Your task to perform on an android device: Clear the cart on target. Search for usb-b on target, select the first entry, add it to the cart, then select checkout. Image 0: 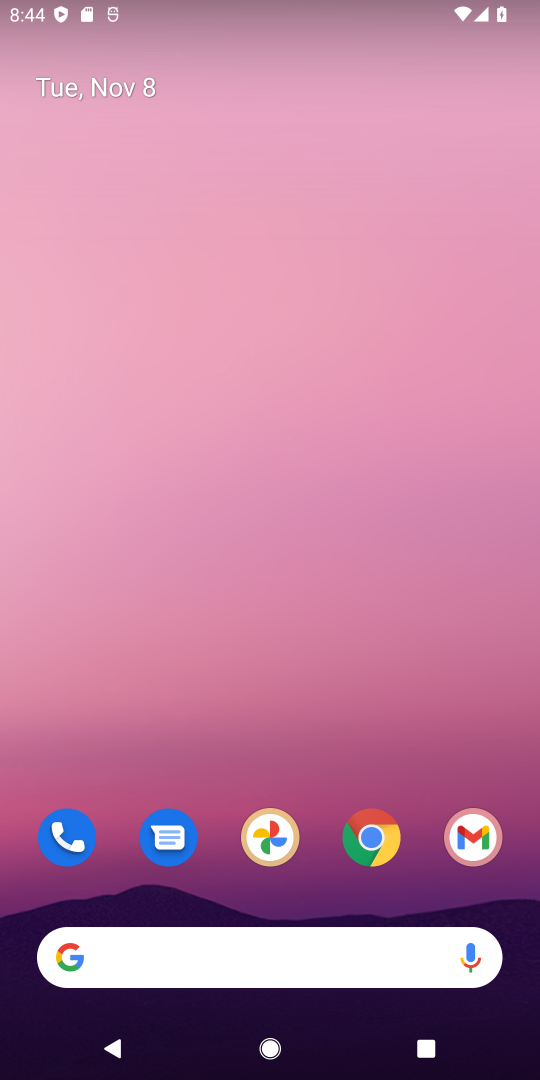
Step 0: click (366, 852)
Your task to perform on an android device: Clear the cart on target. Search for usb-b on target, select the first entry, add it to the cart, then select checkout. Image 1: 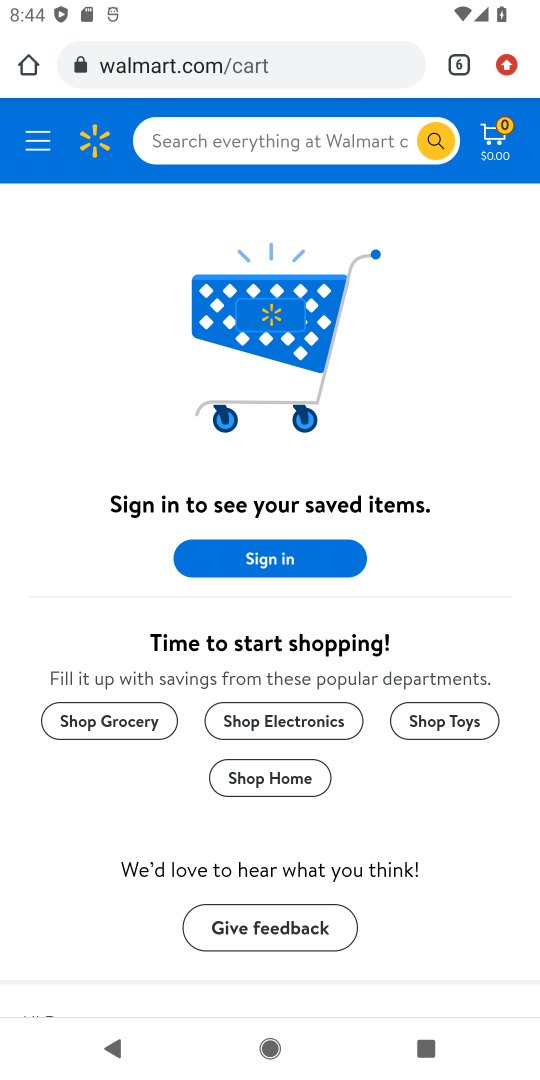
Step 1: click (459, 57)
Your task to perform on an android device: Clear the cart on target. Search for usb-b on target, select the first entry, add it to the cart, then select checkout. Image 2: 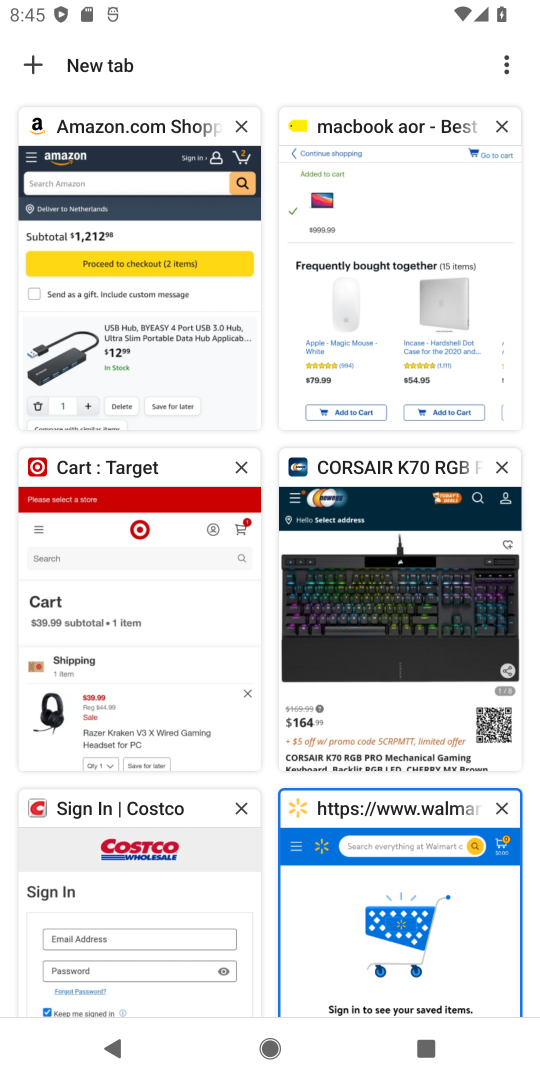
Step 2: click (157, 571)
Your task to perform on an android device: Clear the cart on target. Search for usb-b on target, select the first entry, add it to the cart, then select checkout. Image 3: 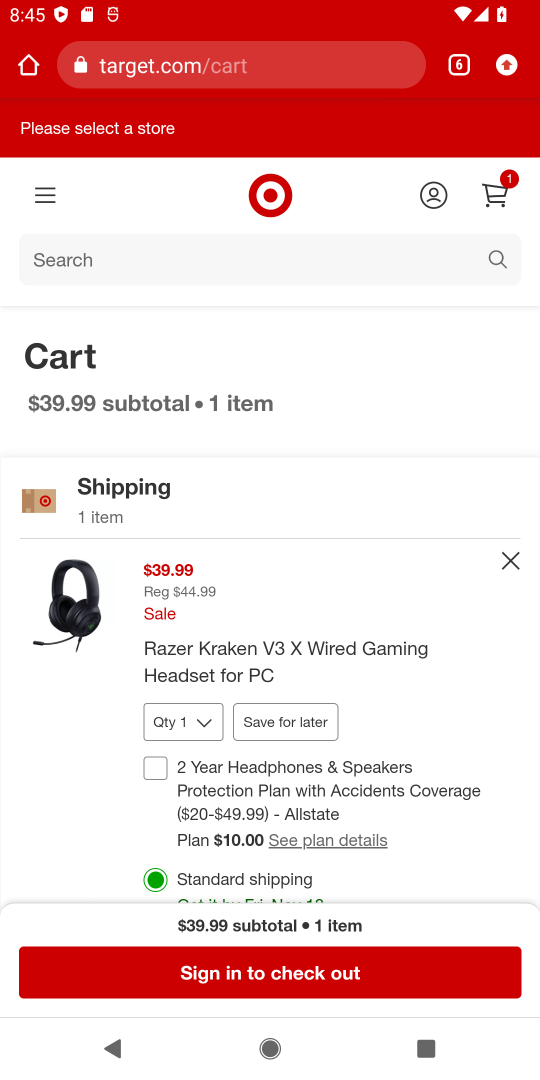
Step 3: click (511, 558)
Your task to perform on an android device: Clear the cart on target. Search for usb-b on target, select the first entry, add it to the cart, then select checkout. Image 4: 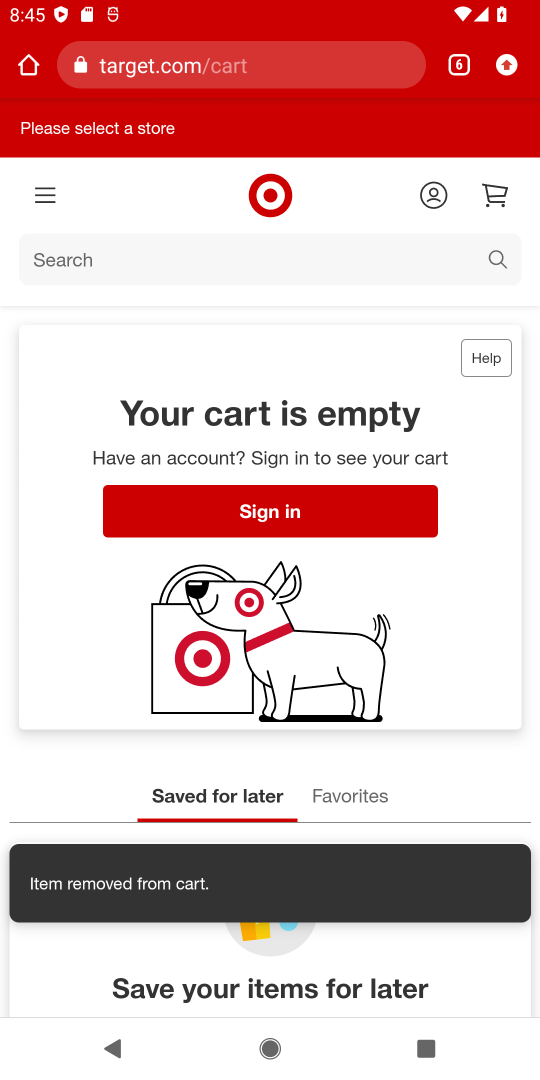
Step 4: click (126, 256)
Your task to perform on an android device: Clear the cart on target. Search for usb-b on target, select the first entry, add it to the cart, then select checkout. Image 5: 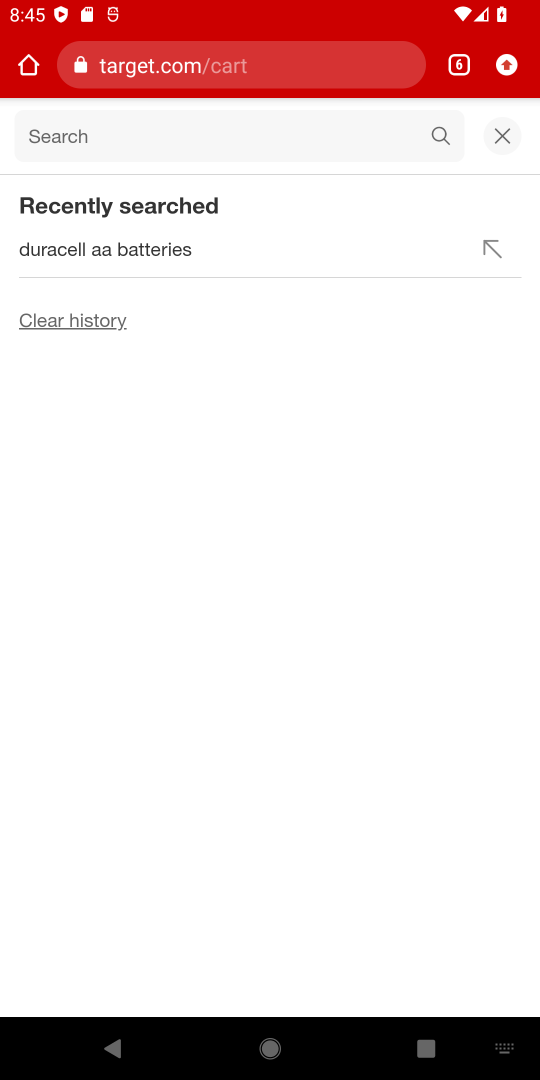
Step 5: type "usb-b"
Your task to perform on an android device: Clear the cart on target. Search for usb-b on target, select the first entry, add it to the cart, then select checkout. Image 6: 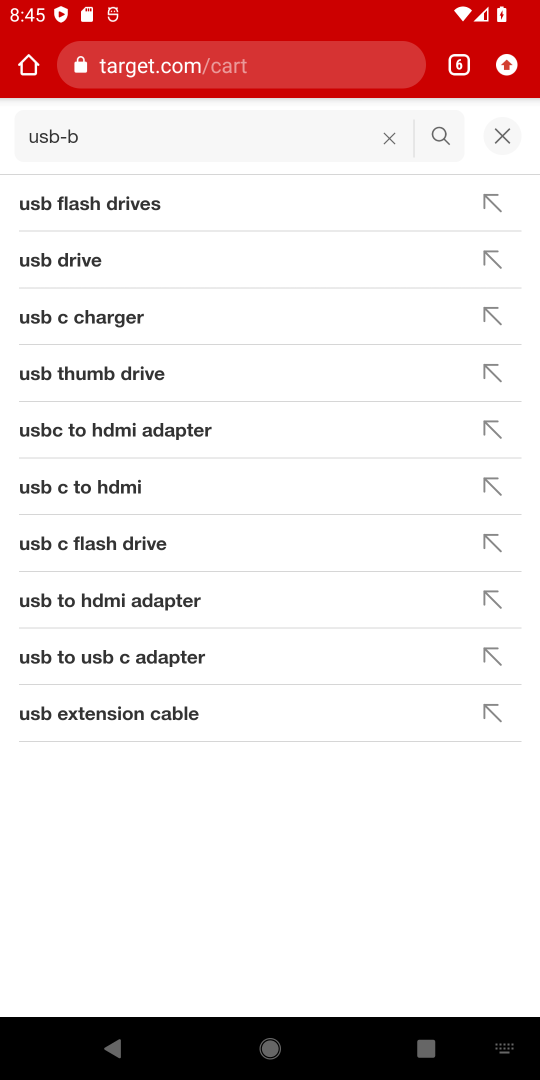
Step 6: click (436, 134)
Your task to perform on an android device: Clear the cart on target. Search for usb-b on target, select the first entry, add it to the cart, then select checkout. Image 7: 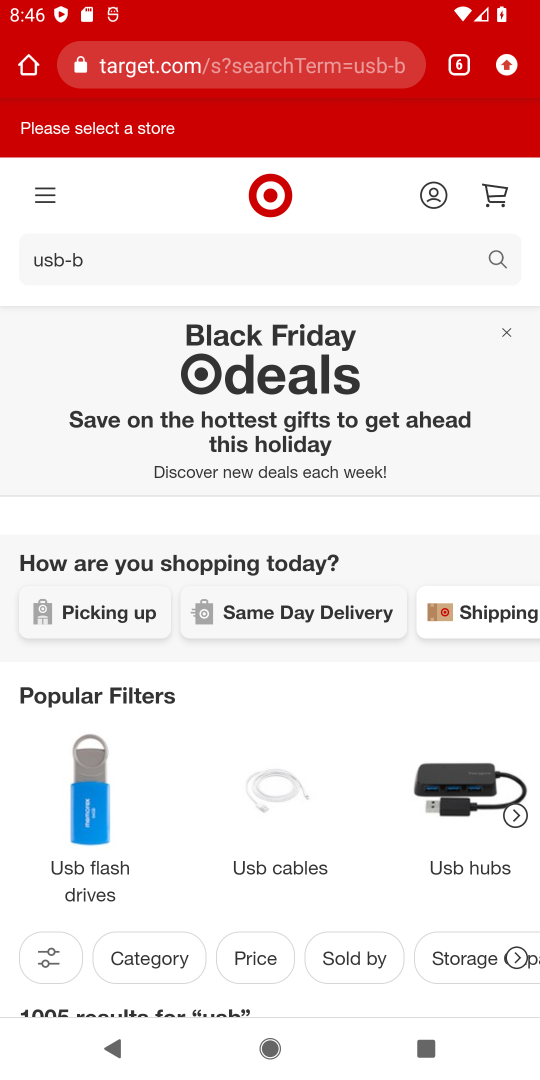
Step 7: drag from (223, 919) to (236, 531)
Your task to perform on an android device: Clear the cart on target. Search for usb-b on target, select the first entry, add it to the cart, then select checkout. Image 8: 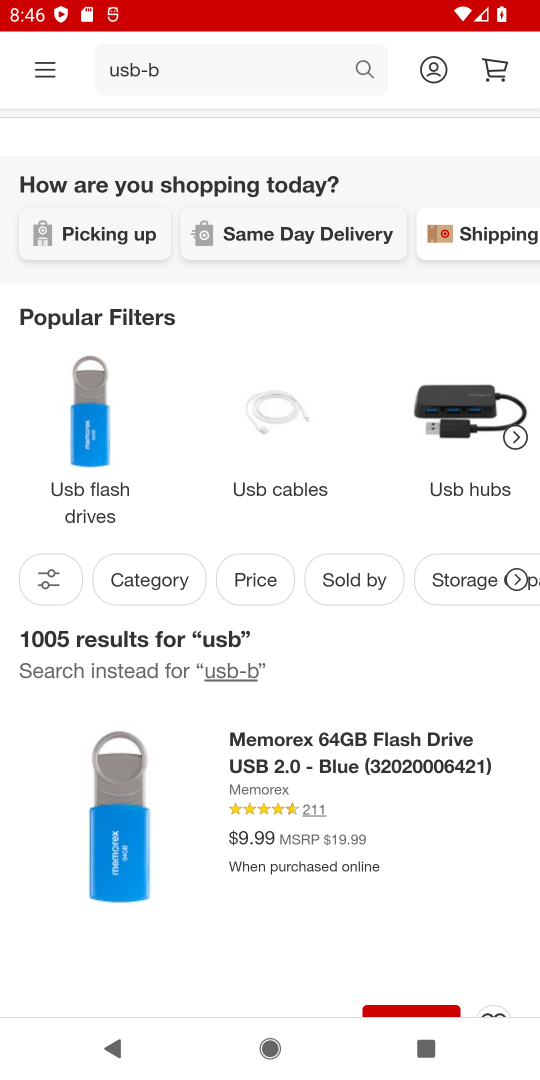
Step 8: drag from (307, 887) to (311, 322)
Your task to perform on an android device: Clear the cart on target. Search for usb-b on target, select the first entry, add it to the cart, then select checkout. Image 9: 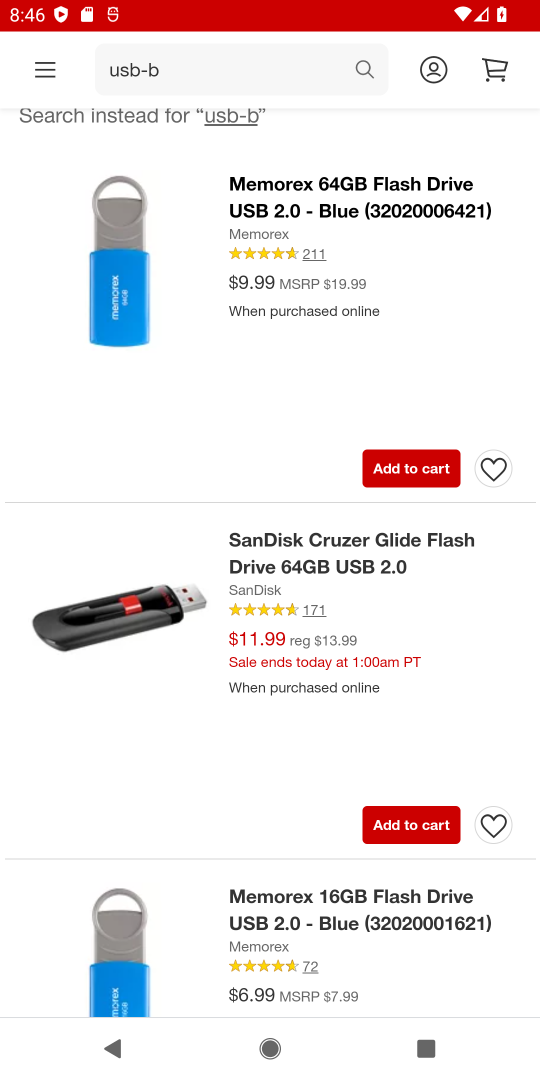
Step 9: click (395, 823)
Your task to perform on an android device: Clear the cart on target. Search for usb-b on target, select the first entry, add it to the cart, then select checkout. Image 10: 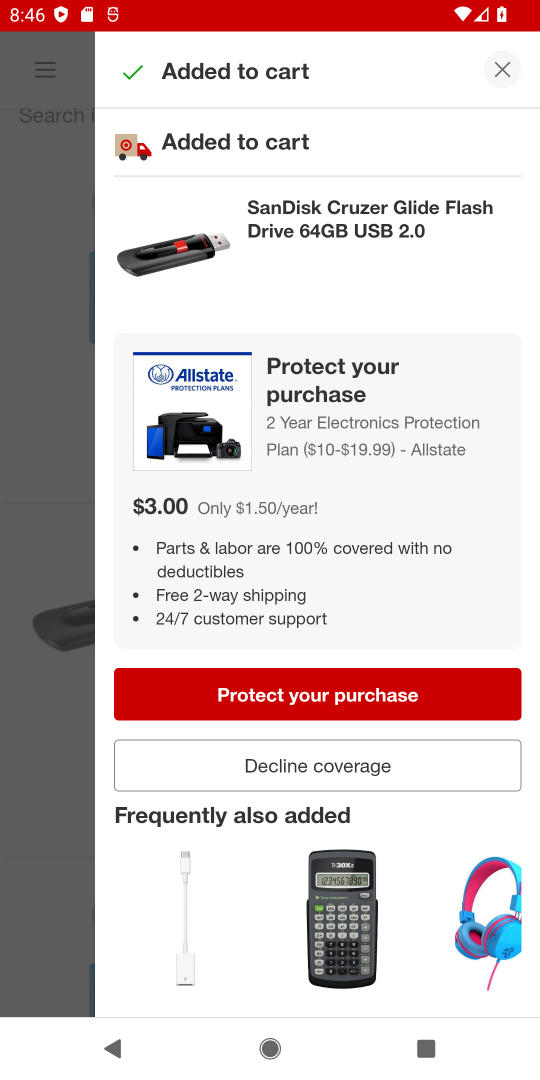
Step 10: task complete